Your task to perform on an android device: Clear all items from cart on bestbuy.com. Search for usb-a on bestbuy.com, select the first entry, and add it to the cart. Image 0: 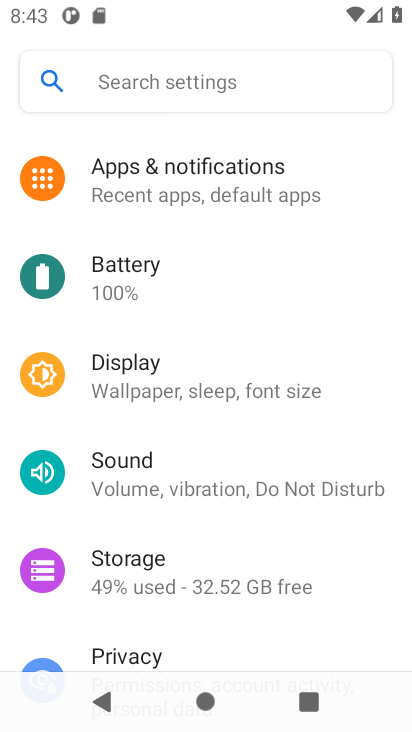
Step 0: press home button
Your task to perform on an android device: Clear all items from cart on bestbuy.com. Search for usb-a on bestbuy.com, select the first entry, and add it to the cart. Image 1: 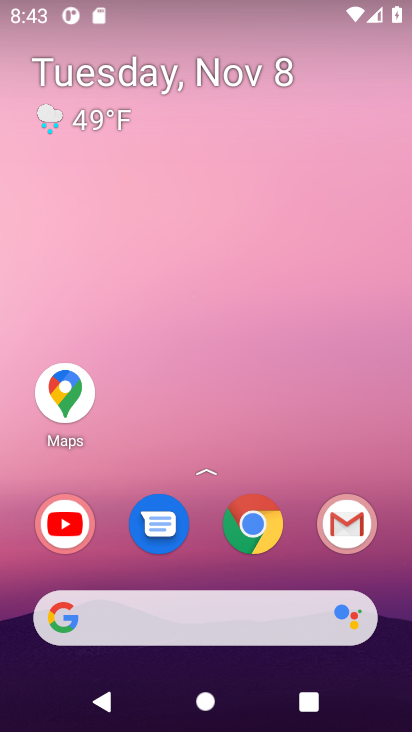
Step 1: click (252, 526)
Your task to perform on an android device: Clear all items from cart on bestbuy.com. Search for usb-a on bestbuy.com, select the first entry, and add it to the cart. Image 2: 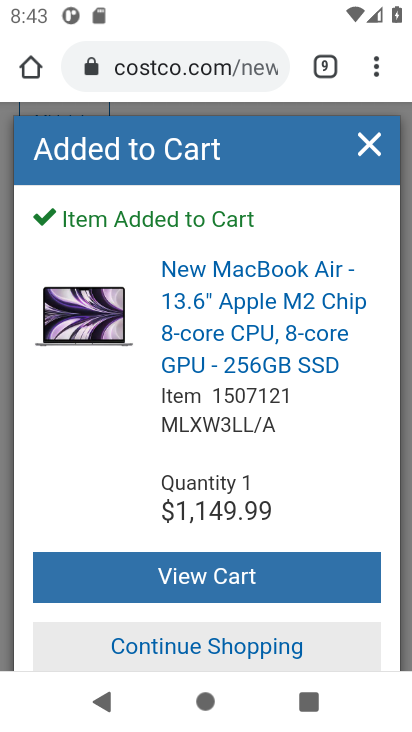
Step 2: click (182, 62)
Your task to perform on an android device: Clear all items from cart on bestbuy.com. Search for usb-a on bestbuy.com, select the first entry, and add it to the cart. Image 3: 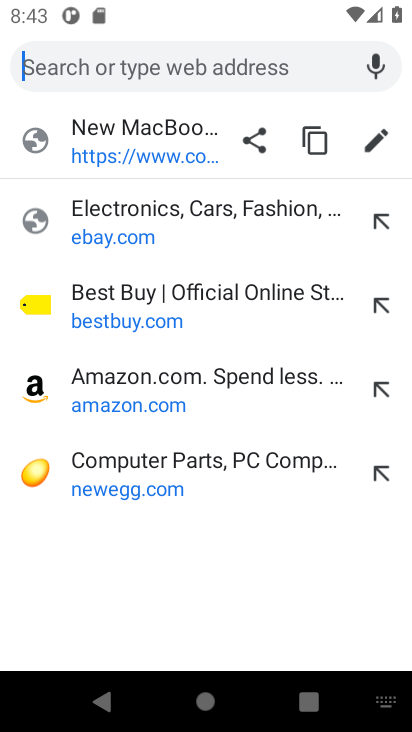
Step 3: click (110, 327)
Your task to perform on an android device: Clear all items from cart on bestbuy.com. Search for usb-a on bestbuy.com, select the first entry, and add it to the cart. Image 4: 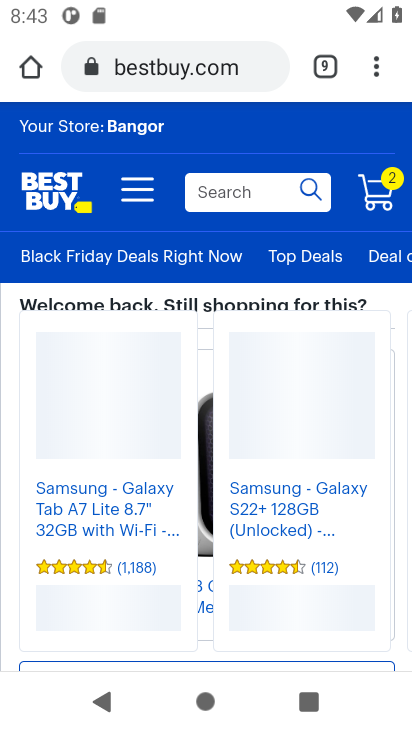
Step 4: click (375, 196)
Your task to perform on an android device: Clear all items from cart on bestbuy.com. Search for usb-a on bestbuy.com, select the first entry, and add it to the cart. Image 5: 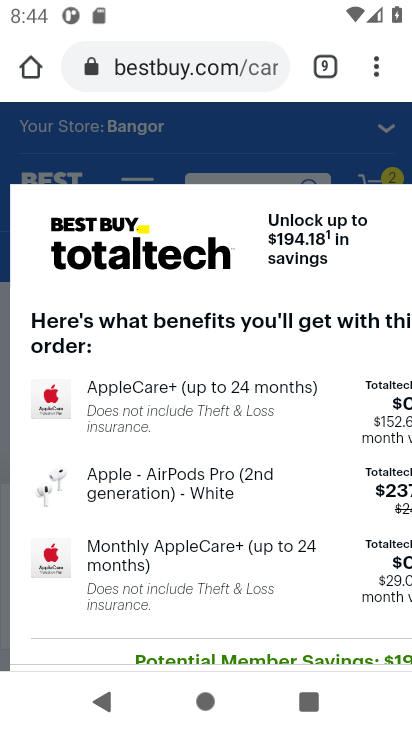
Step 5: drag from (220, 448) to (215, 199)
Your task to perform on an android device: Clear all items from cart on bestbuy.com. Search for usb-a on bestbuy.com, select the first entry, and add it to the cart. Image 6: 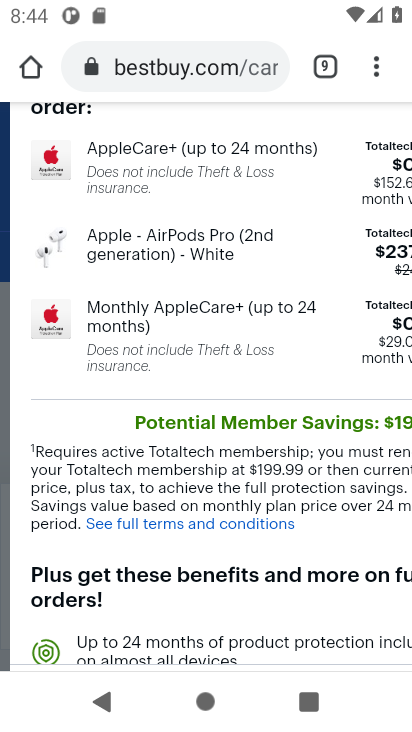
Step 6: drag from (198, 469) to (190, 190)
Your task to perform on an android device: Clear all items from cart on bestbuy.com. Search for usb-a on bestbuy.com, select the first entry, and add it to the cart. Image 7: 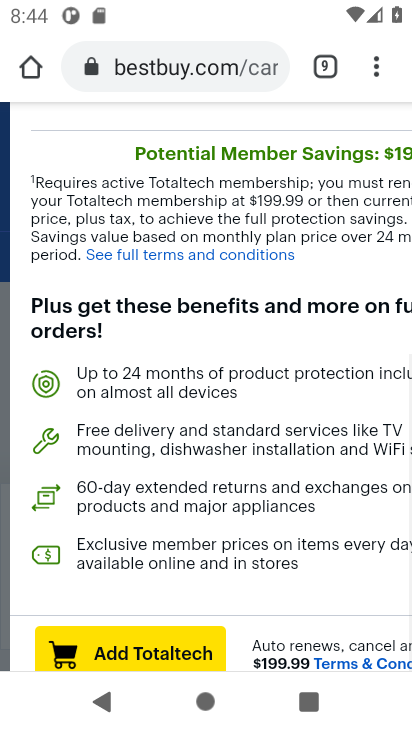
Step 7: drag from (169, 519) to (162, 132)
Your task to perform on an android device: Clear all items from cart on bestbuy.com. Search for usb-a on bestbuy.com, select the first entry, and add it to the cart. Image 8: 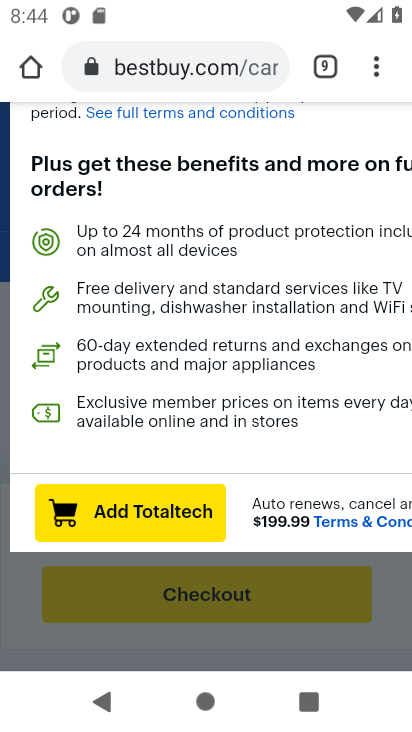
Step 8: drag from (149, 517) to (160, 214)
Your task to perform on an android device: Clear all items from cart on bestbuy.com. Search for usb-a on bestbuy.com, select the first entry, and add it to the cart. Image 9: 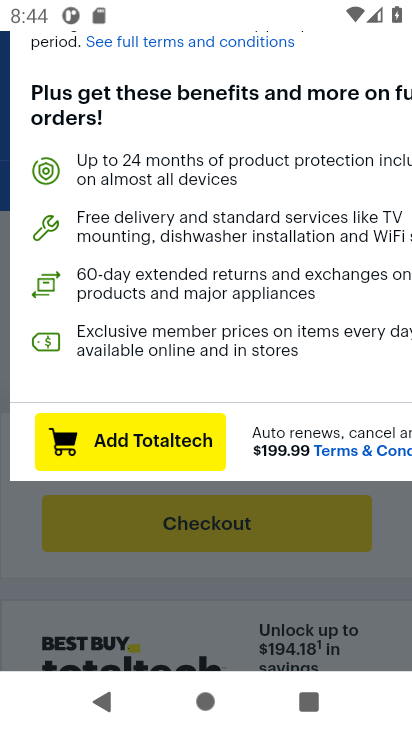
Step 9: click (377, 571)
Your task to perform on an android device: Clear all items from cart on bestbuy.com. Search for usb-a on bestbuy.com, select the first entry, and add it to the cart. Image 10: 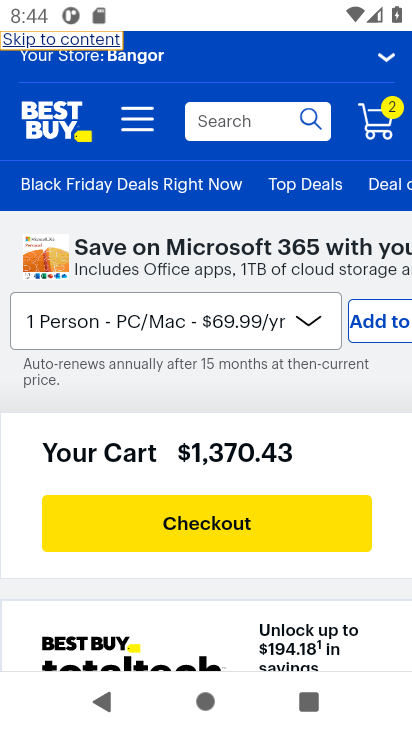
Step 10: drag from (128, 394) to (141, 679)
Your task to perform on an android device: Clear all items from cart on bestbuy.com. Search for usb-a on bestbuy.com, select the first entry, and add it to the cart. Image 11: 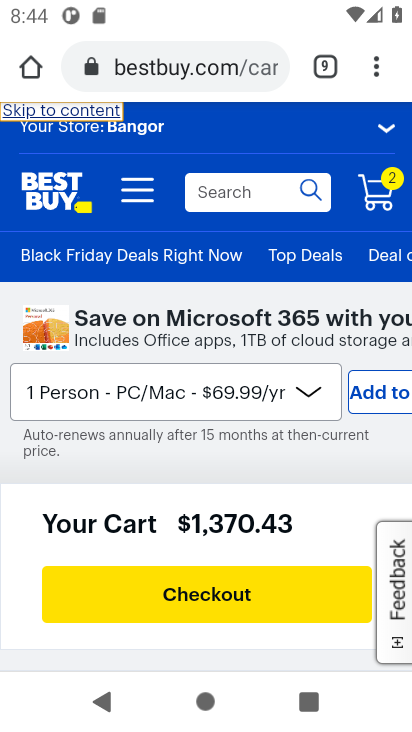
Step 11: drag from (157, 555) to (160, 143)
Your task to perform on an android device: Clear all items from cart on bestbuy.com. Search for usb-a on bestbuy.com, select the first entry, and add it to the cart. Image 12: 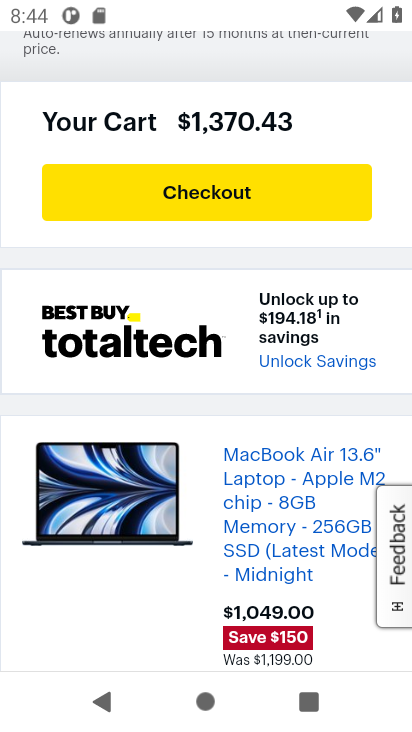
Step 12: drag from (163, 452) to (164, 226)
Your task to perform on an android device: Clear all items from cart on bestbuy.com. Search for usb-a on bestbuy.com, select the first entry, and add it to the cart. Image 13: 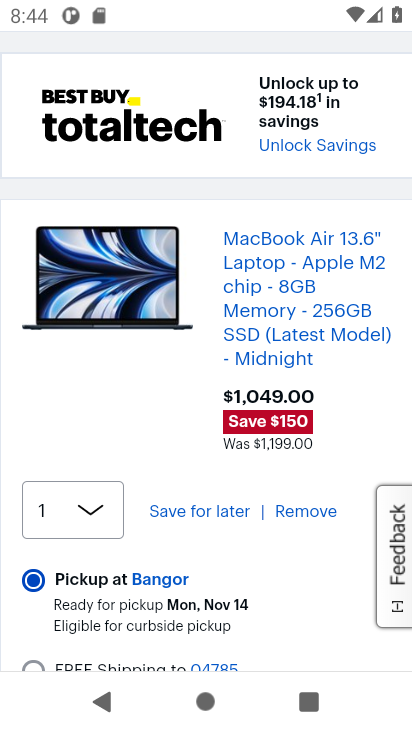
Step 13: click (335, 511)
Your task to perform on an android device: Clear all items from cart on bestbuy.com. Search for usb-a on bestbuy.com, select the first entry, and add it to the cart. Image 14: 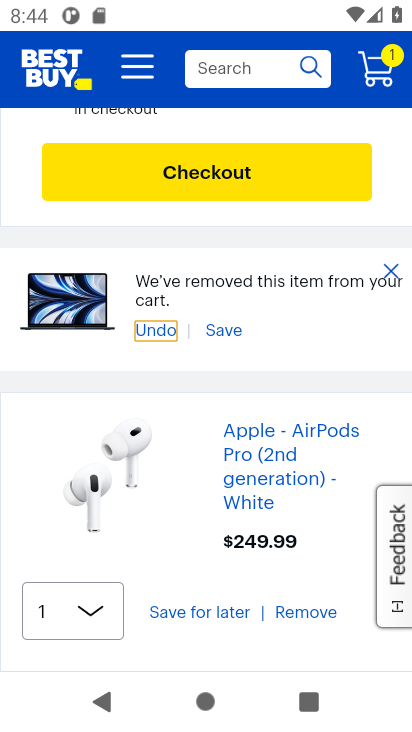
Step 14: click (306, 608)
Your task to perform on an android device: Clear all items from cart on bestbuy.com. Search for usb-a on bestbuy.com, select the first entry, and add it to the cart. Image 15: 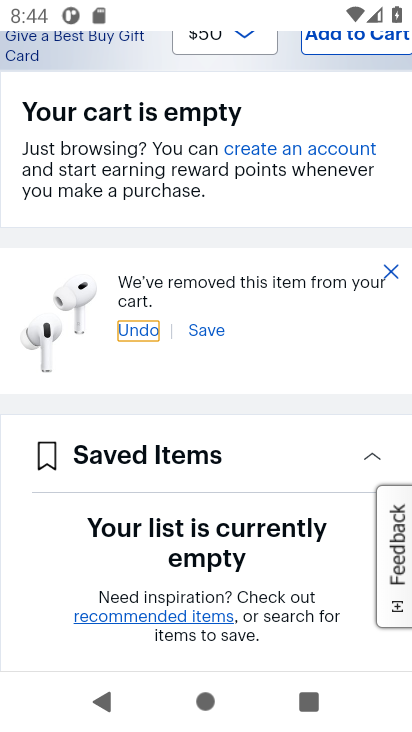
Step 15: drag from (249, 376) to (247, 605)
Your task to perform on an android device: Clear all items from cart on bestbuy.com. Search for usb-a on bestbuy.com, select the first entry, and add it to the cart. Image 16: 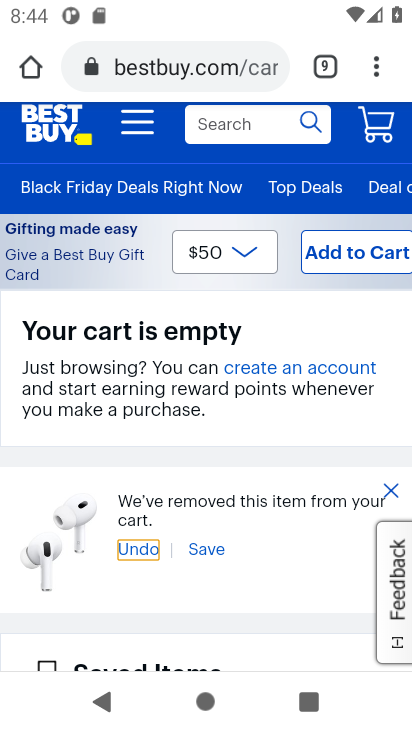
Step 16: click (232, 119)
Your task to perform on an android device: Clear all items from cart on bestbuy.com. Search for usb-a on bestbuy.com, select the first entry, and add it to the cart. Image 17: 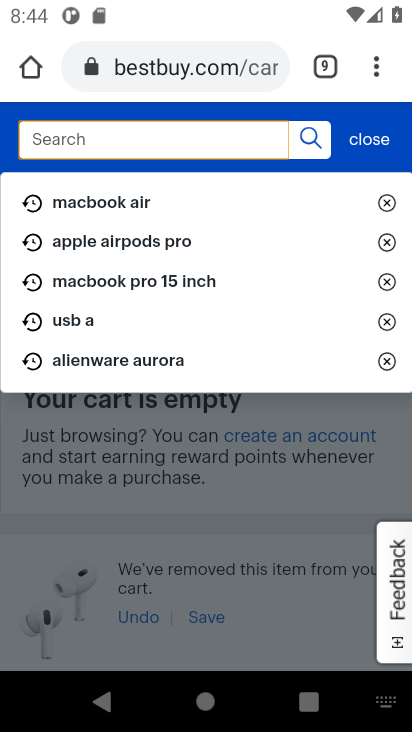
Step 17: type "usb-a "
Your task to perform on an android device: Clear all items from cart on bestbuy.com. Search for usb-a on bestbuy.com, select the first entry, and add it to the cart. Image 18: 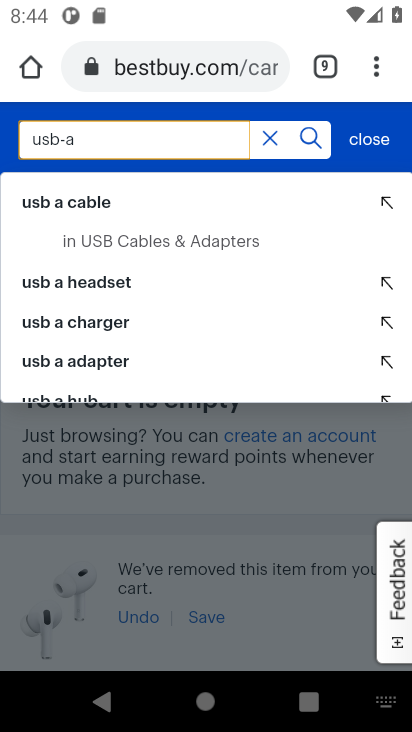
Step 18: click (309, 135)
Your task to perform on an android device: Clear all items from cart on bestbuy.com. Search for usb-a on bestbuy.com, select the first entry, and add it to the cart. Image 19: 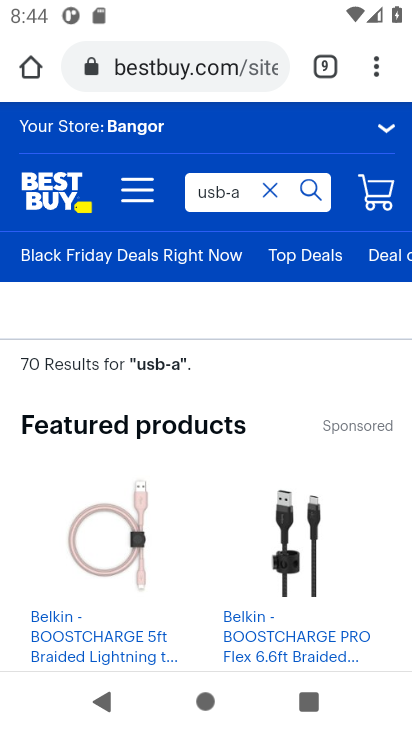
Step 19: drag from (200, 534) to (208, 361)
Your task to perform on an android device: Clear all items from cart on bestbuy.com. Search for usb-a on bestbuy.com, select the first entry, and add it to the cart. Image 20: 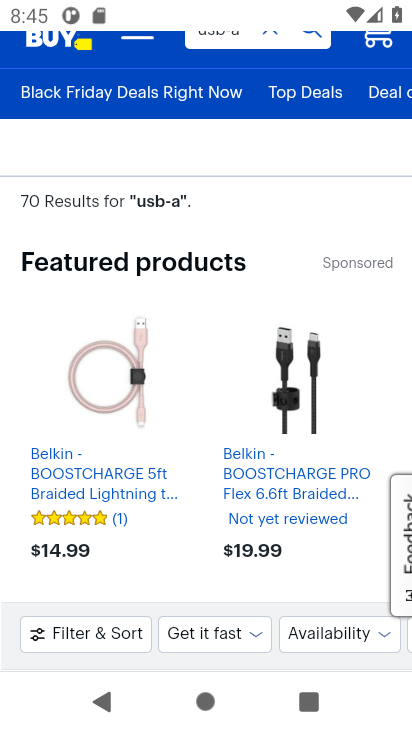
Step 20: drag from (206, 522) to (184, 116)
Your task to perform on an android device: Clear all items from cart on bestbuy.com. Search for usb-a on bestbuy.com, select the first entry, and add it to the cart. Image 21: 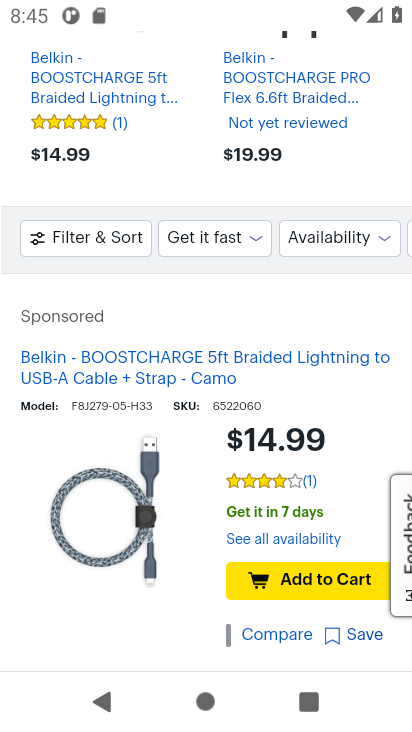
Step 21: click (303, 574)
Your task to perform on an android device: Clear all items from cart on bestbuy.com. Search for usb-a on bestbuy.com, select the first entry, and add it to the cart. Image 22: 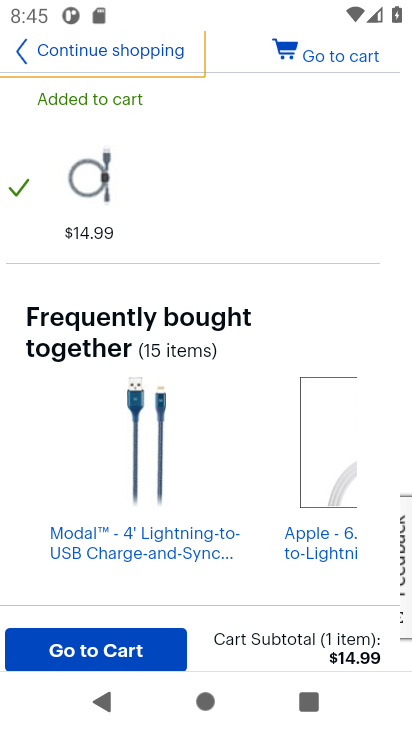
Step 22: task complete